Your task to perform on an android device: Do I have any events tomorrow? Image 0: 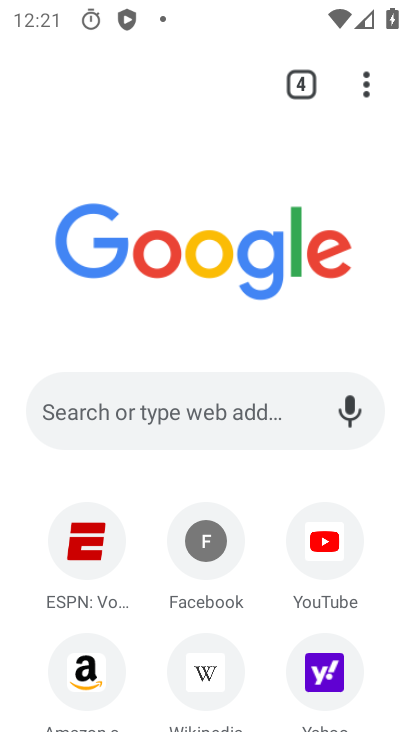
Step 0: press home button
Your task to perform on an android device: Do I have any events tomorrow? Image 1: 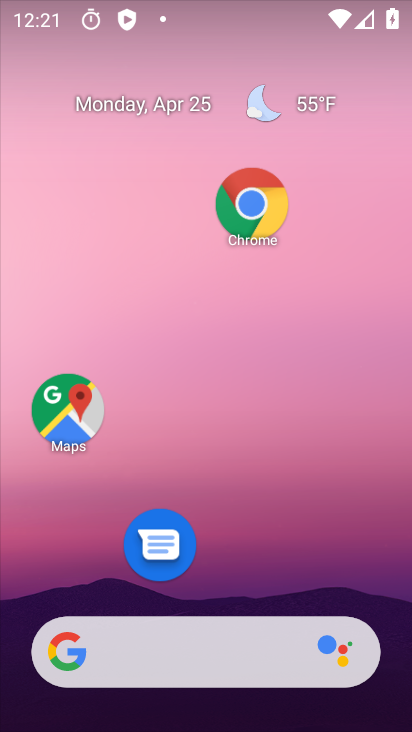
Step 1: drag from (231, 696) to (389, 259)
Your task to perform on an android device: Do I have any events tomorrow? Image 2: 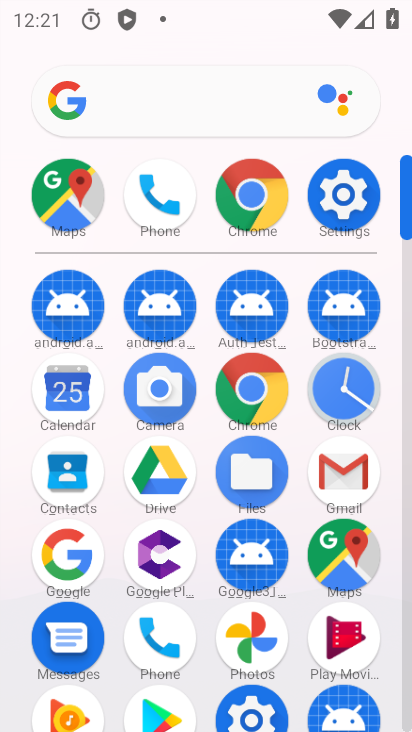
Step 2: click (79, 387)
Your task to perform on an android device: Do I have any events tomorrow? Image 3: 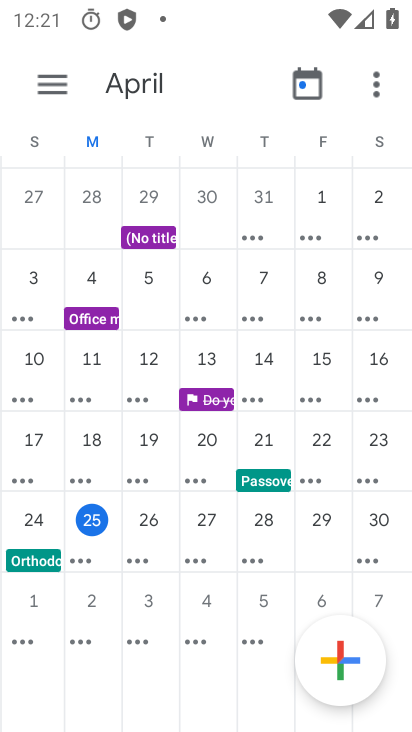
Step 3: click (55, 81)
Your task to perform on an android device: Do I have any events tomorrow? Image 4: 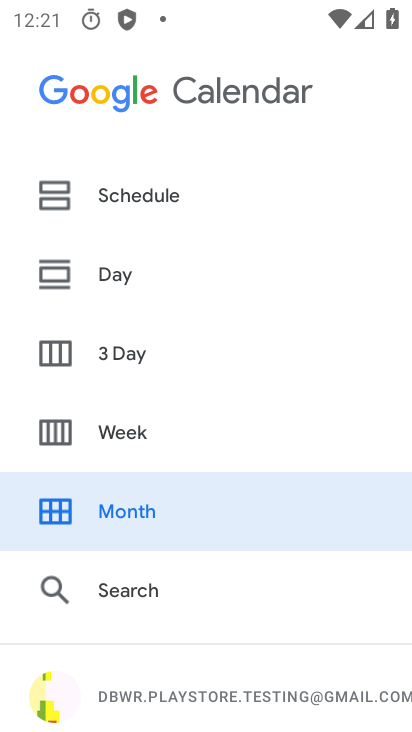
Step 4: click (105, 199)
Your task to perform on an android device: Do I have any events tomorrow? Image 5: 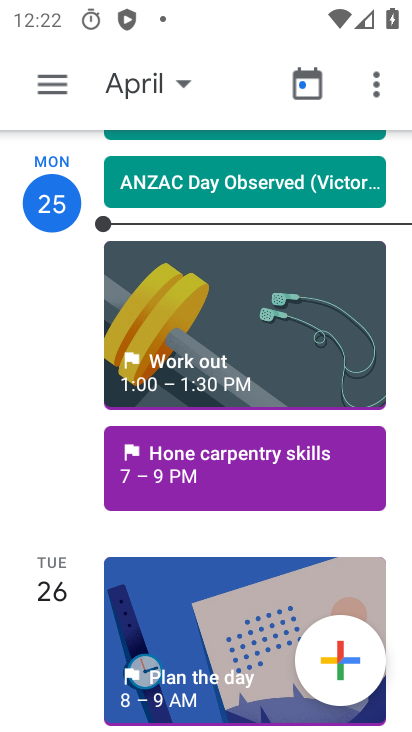
Step 5: task complete